Your task to perform on an android device: Go to Google Image 0: 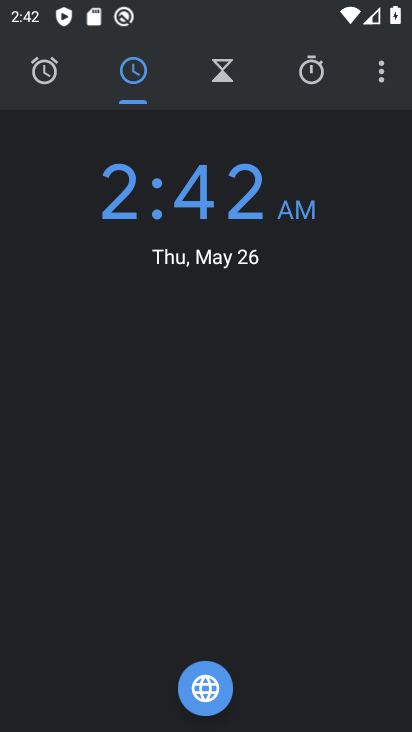
Step 0: press home button
Your task to perform on an android device: Go to Google Image 1: 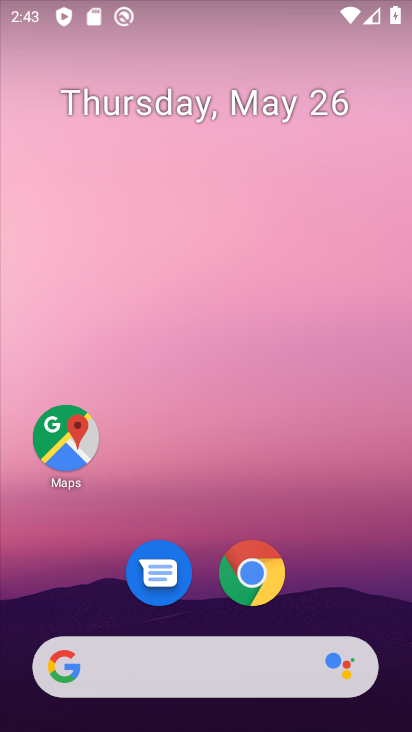
Step 1: drag from (219, 509) to (243, 161)
Your task to perform on an android device: Go to Google Image 2: 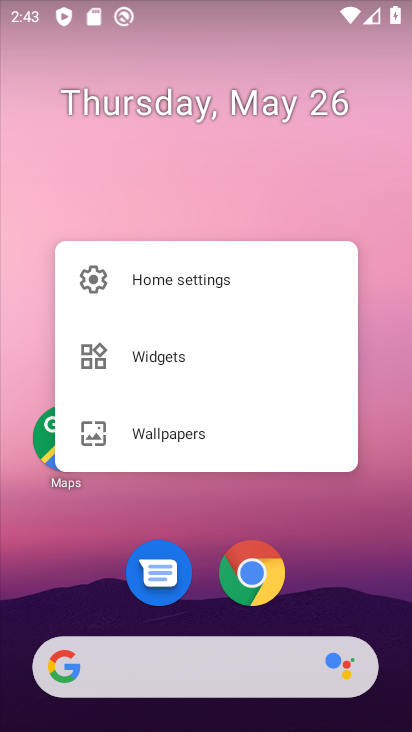
Step 2: drag from (242, 24) to (402, 558)
Your task to perform on an android device: Go to Google Image 3: 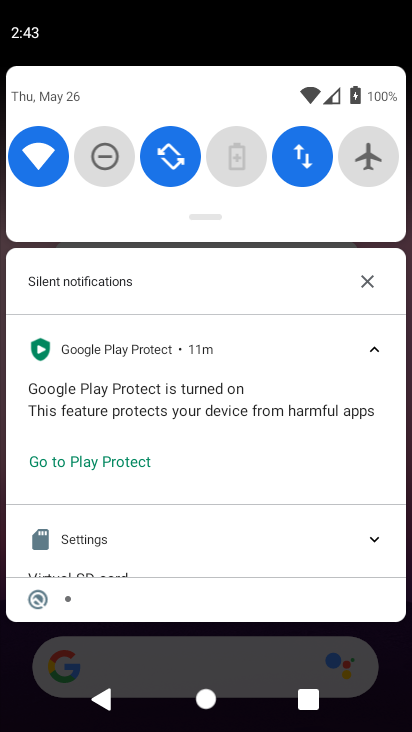
Step 3: drag from (195, 457) to (230, 164)
Your task to perform on an android device: Go to Google Image 4: 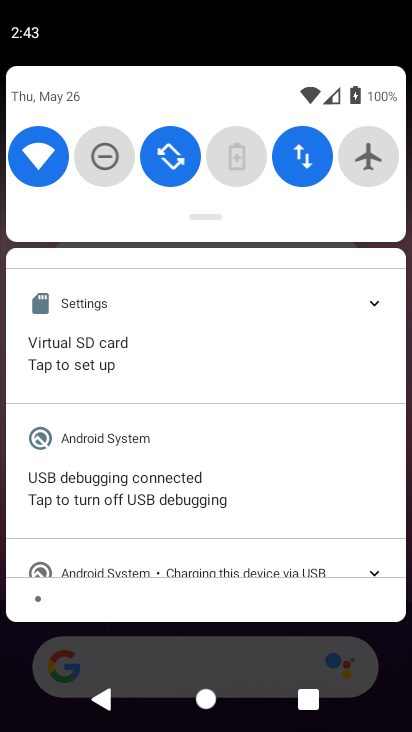
Step 4: press home button
Your task to perform on an android device: Go to Google Image 5: 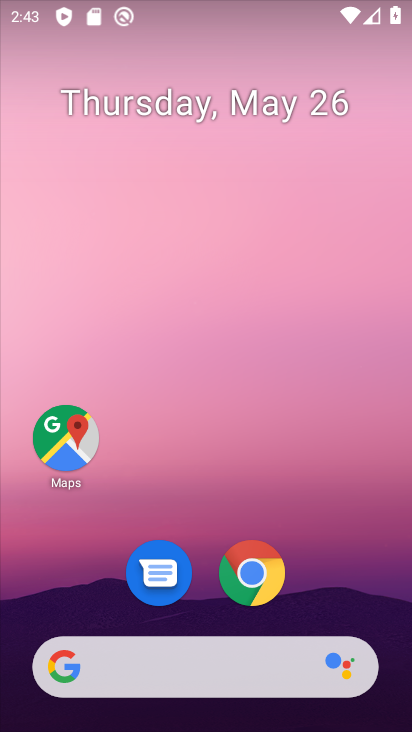
Step 5: drag from (202, 671) to (288, 149)
Your task to perform on an android device: Go to Google Image 6: 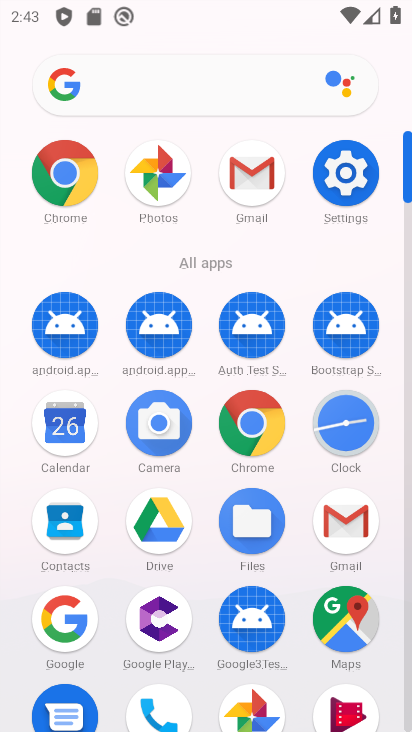
Step 6: click (80, 598)
Your task to perform on an android device: Go to Google Image 7: 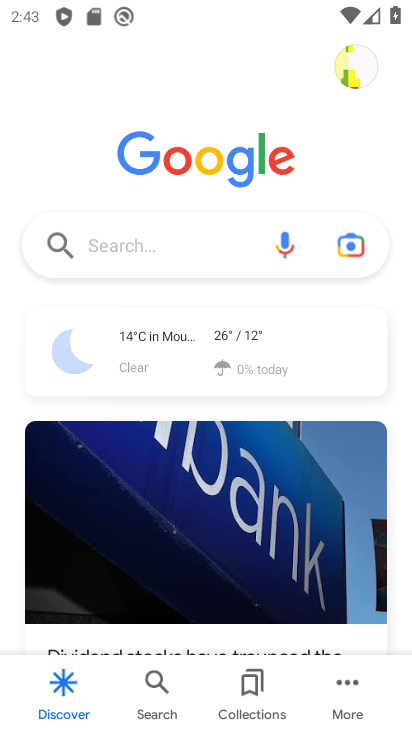
Step 7: task complete